Your task to perform on an android device: Clear all items from cart on walmart.com. Search for "razer deathadder" on walmart.com, select the first entry, add it to the cart, then select checkout. Image 0: 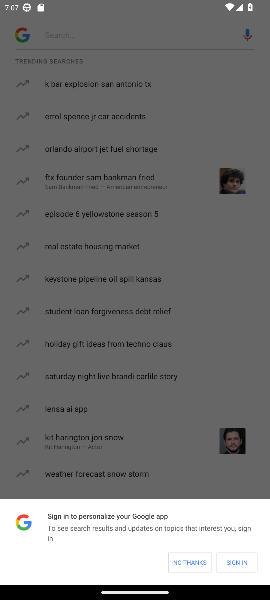
Step 0: press home button
Your task to perform on an android device: Clear all items from cart on walmart.com. Search for "razer deathadder" on walmart.com, select the first entry, add it to the cart, then select checkout. Image 1: 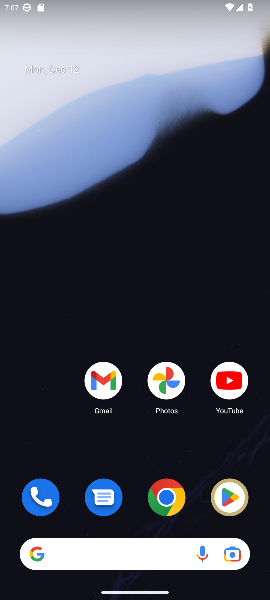
Step 1: drag from (55, 438) to (81, 85)
Your task to perform on an android device: Clear all items from cart on walmart.com. Search for "razer deathadder" on walmart.com, select the first entry, add it to the cart, then select checkout. Image 2: 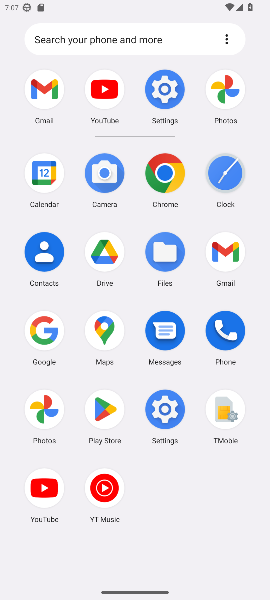
Step 2: click (35, 339)
Your task to perform on an android device: Clear all items from cart on walmart.com. Search for "razer deathadder" on walmart.com, select the first entry, add it to the cart, then select checkout. Image 3: 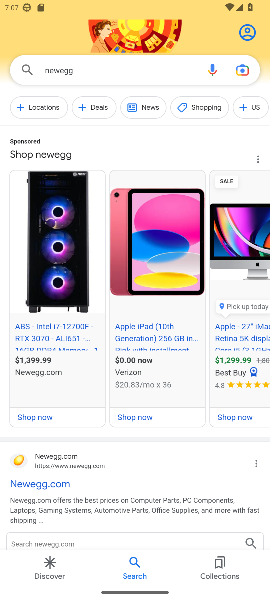
Step 3: click (98, 67)
Your task to perform on an android device: Clear all items from cart on walmart.com. Search for "razer deathadder" on walmart.com, select the first entry, add it to the cart, then select checkout. Image 4: 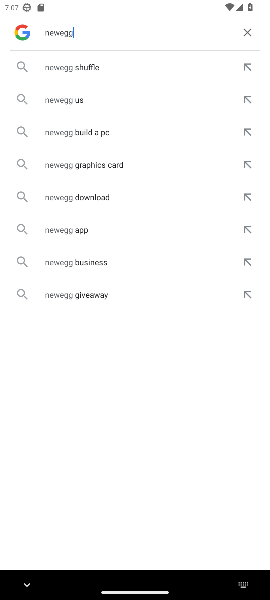
Step 4: click (245, 29)
Your task to perform on an android device: Clear all items from cart on walmart.com. Search for "razer deathadder" on walmart.com, select the first entry, add it to the cart, then select checkout. Image 5: 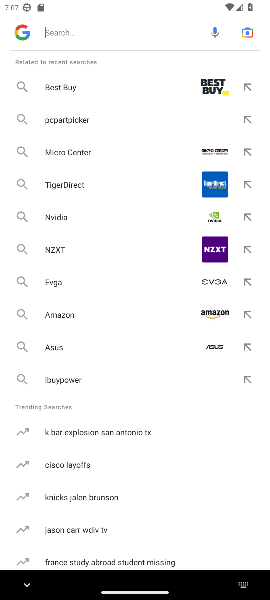
Step 5: type "walmart.com"
Your task to perform on an android device: Clear all items from cart on walmart.com. Search for "razer deathadder" on walmart.com, select the first entry, add it to the cart, then select checkout. Image 6: 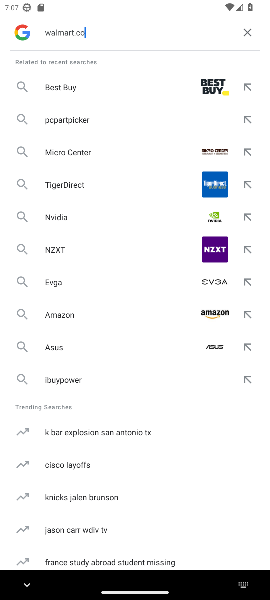
Step 6: press enter
Your task to perform on an android device: Clear all items from cart on walmart.com. Search for "razer deathadder" on walmart.com, select the first entry, add it to the cart, then select checkout. Image 7: 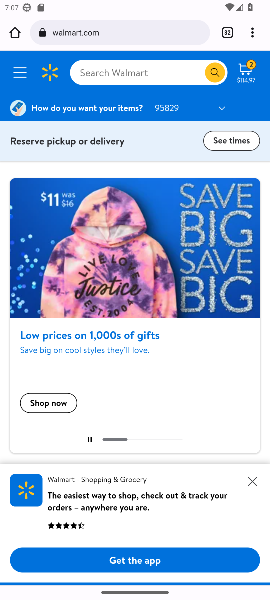
Step 7: click (246, 72)
Your task to perform on an android device: Clear all items from cart on walmart.com. Search for "razer deathadder" on walmart.com, select the first entry, add it to the cart, then select checkout. Image 8: 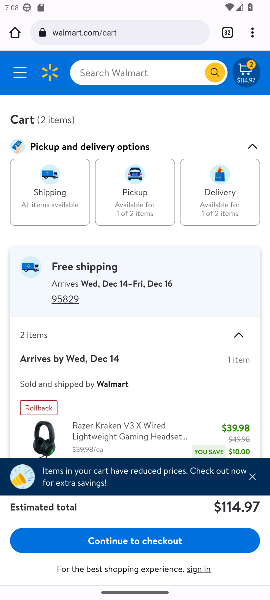
Step 8: drag from (126, 408) to (118, 143)
Your task to perform on an android device: Clear all items from cart on walmart.com. Search for "razer deathadder" on walmart.com, select the first entry, add it to the cart, then select checkout. Image 9: 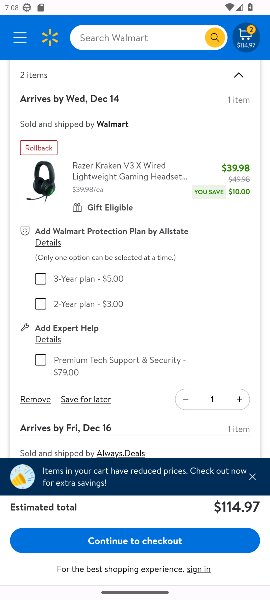
Step 9: click (29, 400)
Your task to perform on an android device: Clear all items from cart on walmart.com. Search for "razer deathadder" on walmart.com, select the first entry, add it to the cart, then select checkout. Image 10: 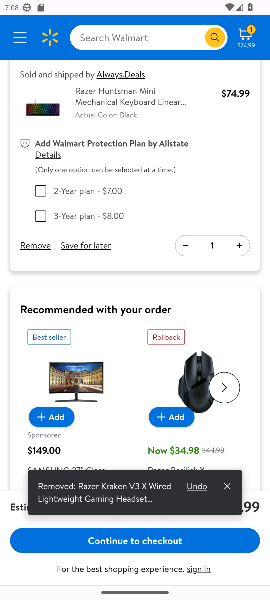
Step 10: click (33, 241)
Your task to perform on an android device: Clear all items from cart on walmart.com. Search for "razer deathadder" on walmart.com, select the first entry, add it to the cart, then select checkout. Image 11: 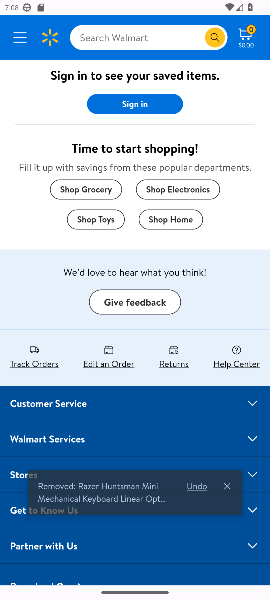
Step 11: click (122, 34)
Your task to perform on an android device: Clear all items from cart on walmart.com. Search for "razer deathadder" on walmart.com, select the first entry, add it to the cart, then select checkout. Image 12: 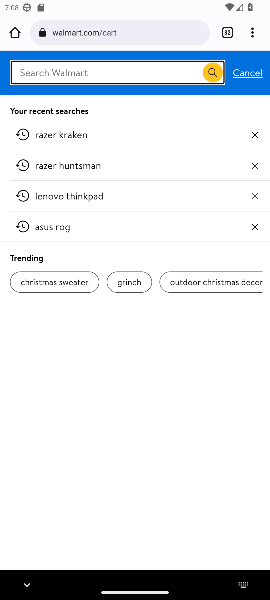
Step 12: type "razer deathadder"
Your task to perform on an android device: Clear all items from cart on walmart.com. Search for "razer deathadder" on walmart.com, select the first entry, add it to the cart, then select checkout. Image 13: 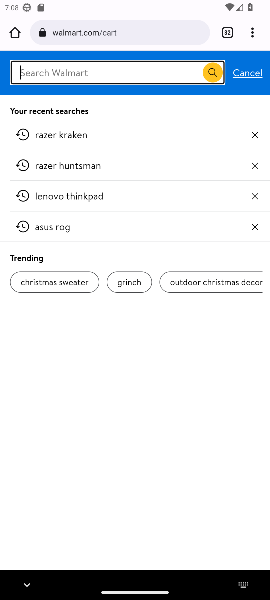
Step 13: press enter
Your task to perform on an android device: Clear all items from cart on walmart.com. Search for "razer deathadder" on walmart.com, select the first entry, add it to the cart, then select checkout. Image 14: 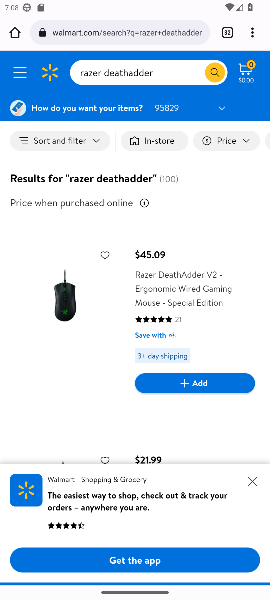
Step 14: click (194, 384)
Your task to perform on an android device: Clear all items from cart on walmart.com. Search for "razer deathadder" on walmart.com, select the first entry, add it to the cart, then select checkout. Image 15: 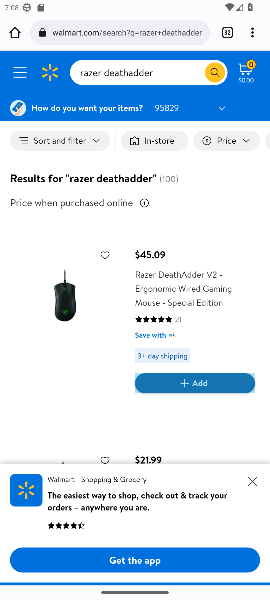
Step 15: click (184, 382)
Your task to perform on an android device: Clear all items from cart on walmart.com. Search for "razer deathadder" on walmart.com, select the first entry, add it to the cart, then select checkout. Image 16: 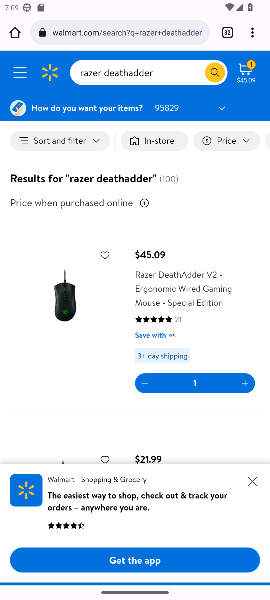
Step 16: task complete